Your task to perform on an android device: Search for pizza restaurants on Maps Image 0: 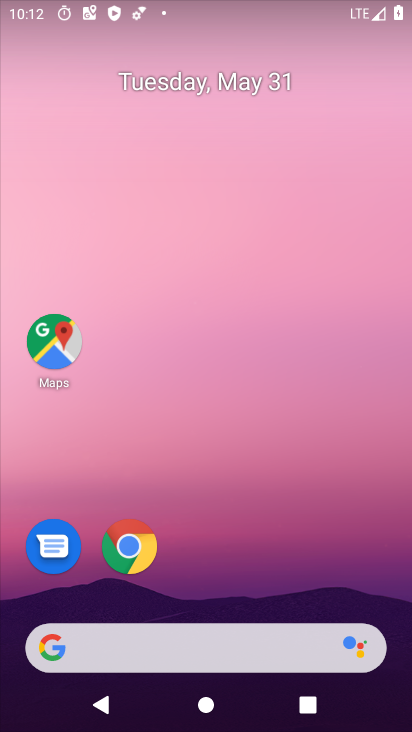
Step 0: click (65, 347)
Your task to perform on an android device: Search for pizza restaurants on Maps Image 1: 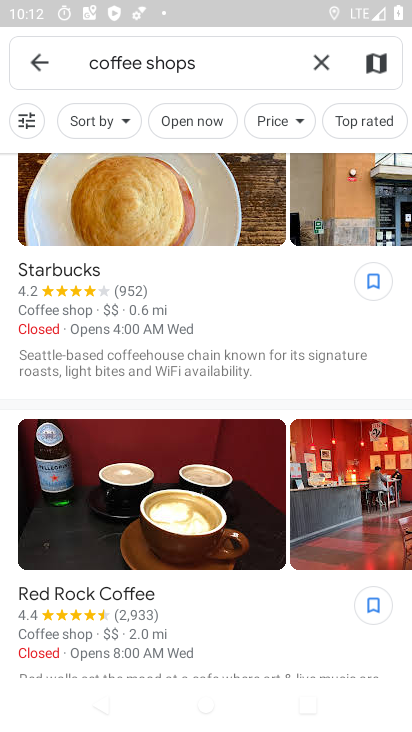
Step 1: click (332, 56)
Your task to perform on an android device: Search for pizza restaurants on Maps Image 2: 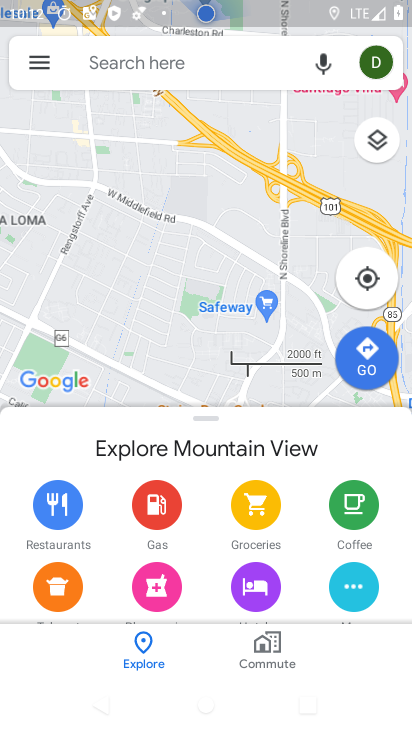
Step 2: click (280, 55)
Your task to perform on an android device: Search for pizza restaurants on Maps Image 3: 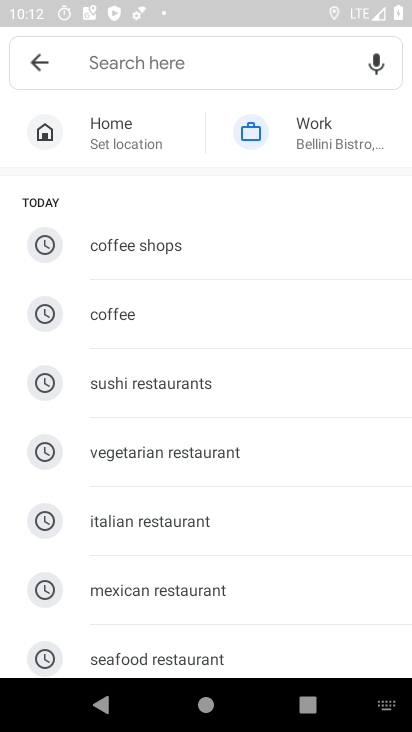
Step 3: drag from (310, 622) to (345, 352)
Your task to perform on an android device: Search for pizza restaurants on Maps Image 4: 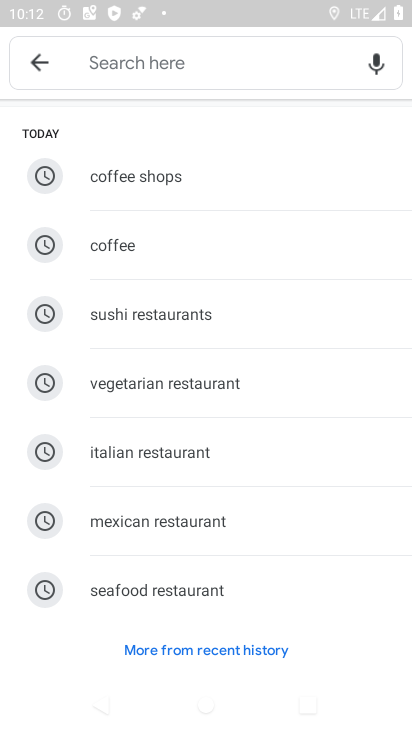
Step 4: click (208, 52)
Your task to perform on an android device: Search for pizza restaurants on Maps Image 5: 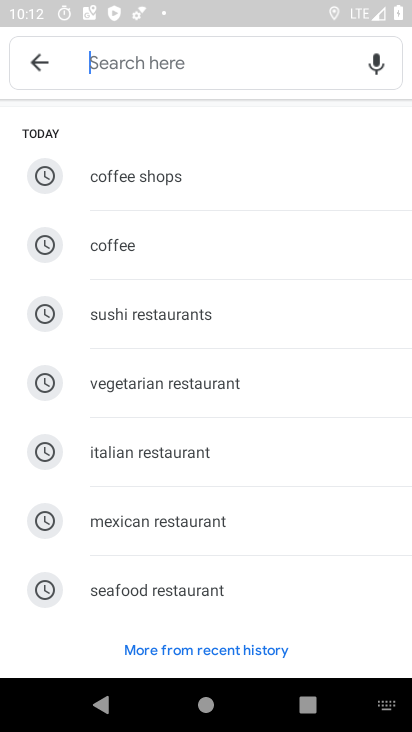
Step 5: click (208, 52)
Your task to perform on an android device: Search for pizza restaurants on Maps Image 6: 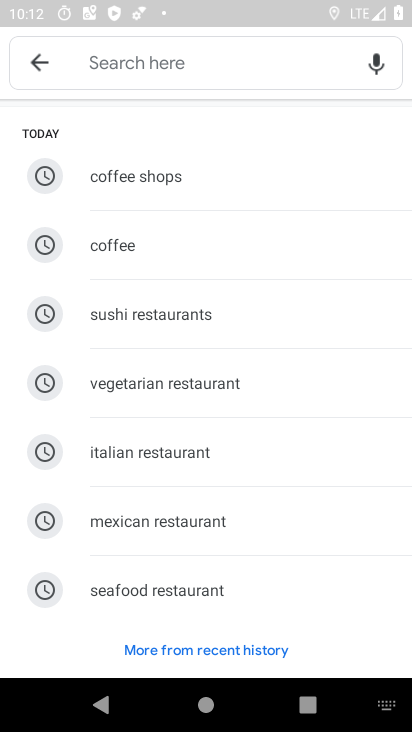
Step 6: type "pizza restaurant"
Your task to perform on an android device: Search for pizza restaurants on Maps Image 7: 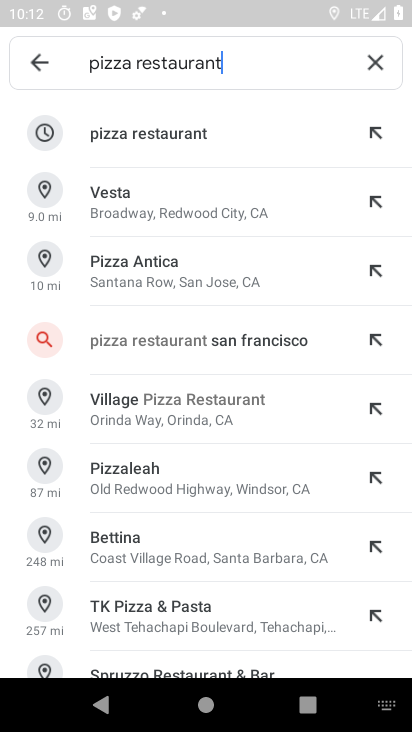
Step 7: click (259, 130)
Your task to perform on an android device: Search for pizza restaurants on Maps Image 8: 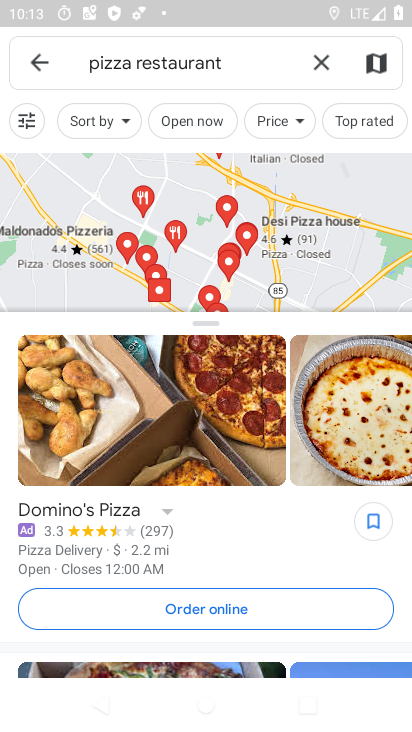
Step 8: task complete